Your task to perform on an android device: Open the web browser Image 0: 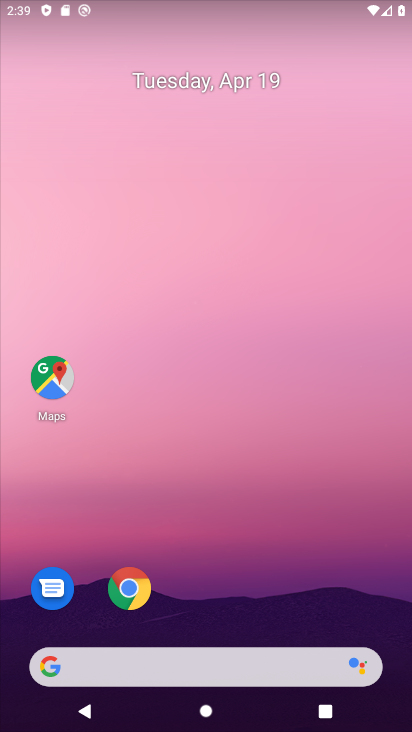
Step 0: drag from (239, 673) to (332, 195)
Your task to perform on an android device: Open the web browser Image 1: 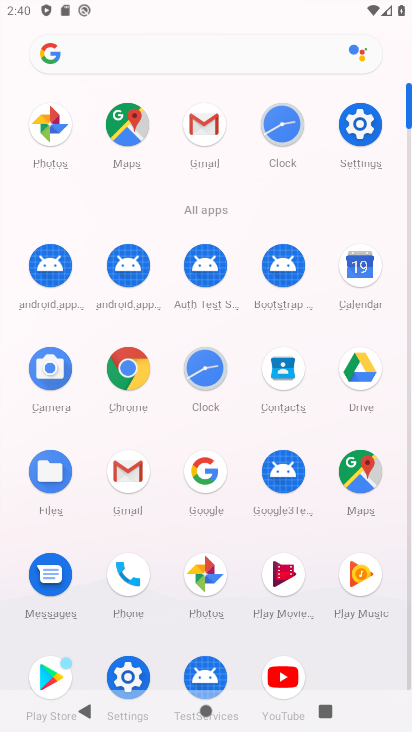
Step 1: click (121, 366)
Your task to perform on an android device: Open the web browser Image 2: 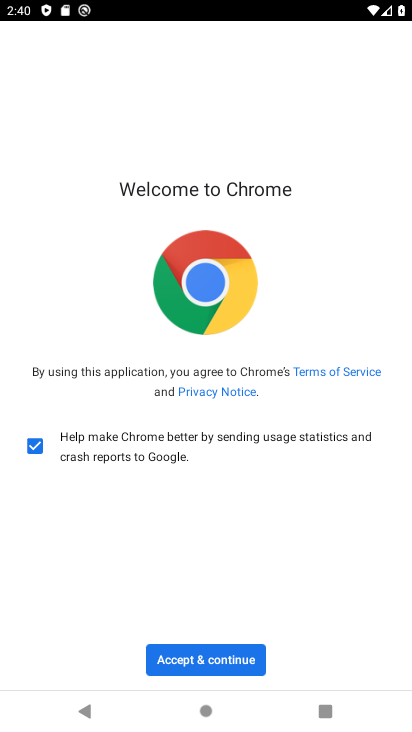
Step 2: click (216, 655)
Your task to perform on an android device: Open the web browser Image 3: 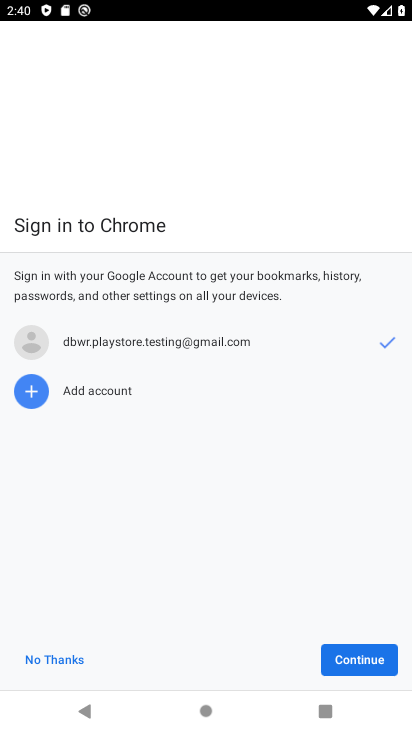
Step 3: click (354, 656)
Your task to perform on an android device: Open the web browser Image 4: 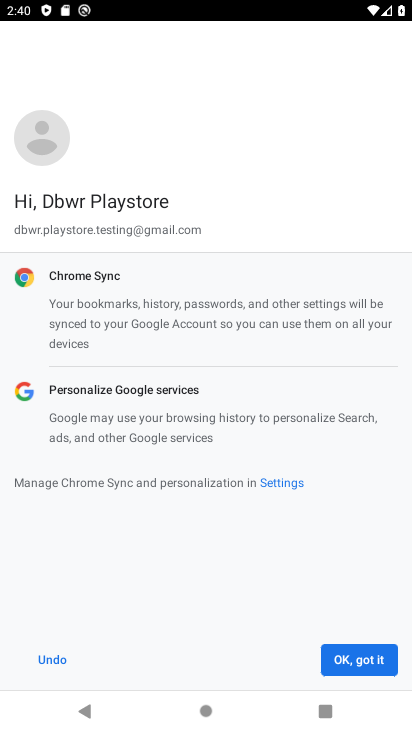
Step 4: click (366, 655)
Your task to perform on an android device: Open the web browser Image 5: 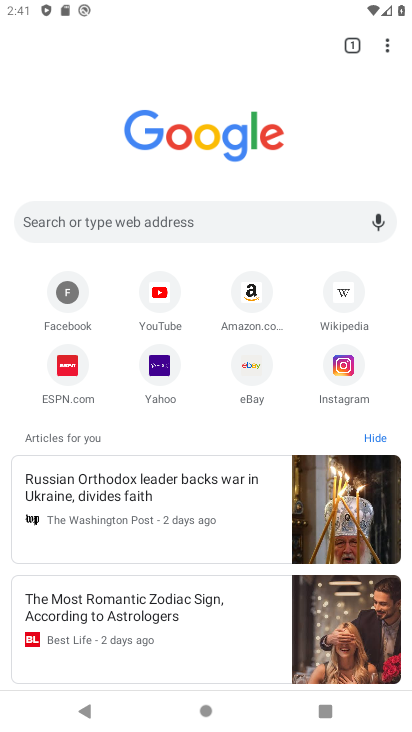
Step 5: click (152, 215)
Your task to perform on an android device: Open the web browser Image 6: 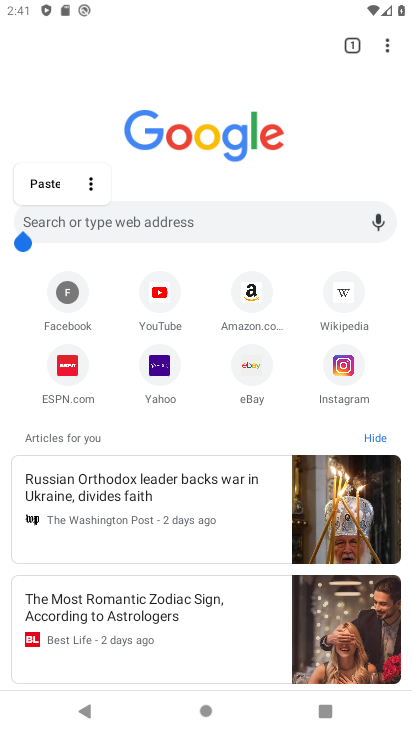
Step 6: task complete